Your task to perform on an android device: toggle improve location accuracy Image 0: 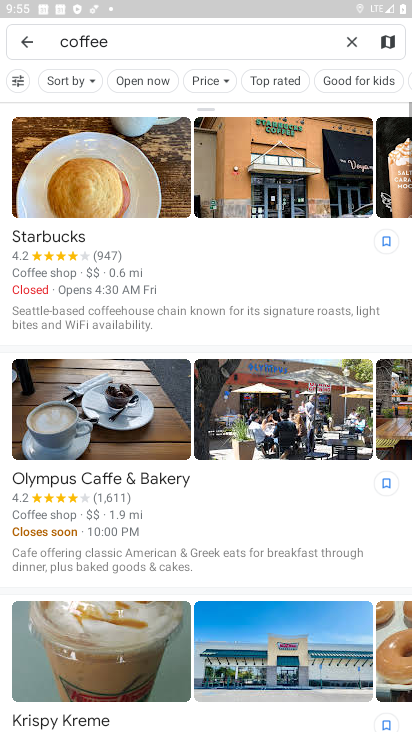
Step 0: drag from (327, 628) to (204, 18)
Your task to perform on an android device: toggle improve location accuracy Image 1: 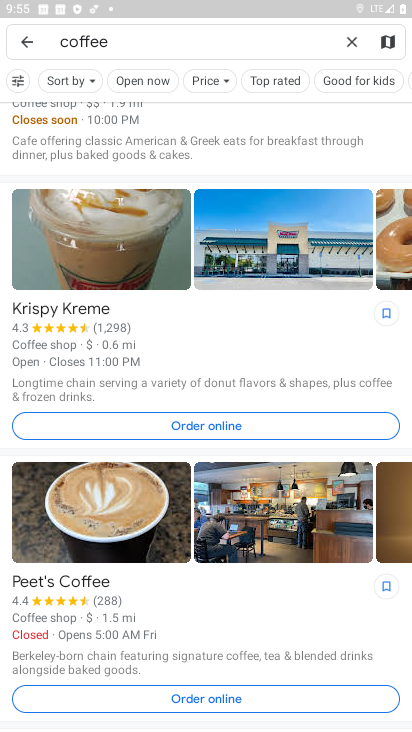
Step 1: press home button
Your task to perform on an android device: toggle improve location accuracy Image 2: 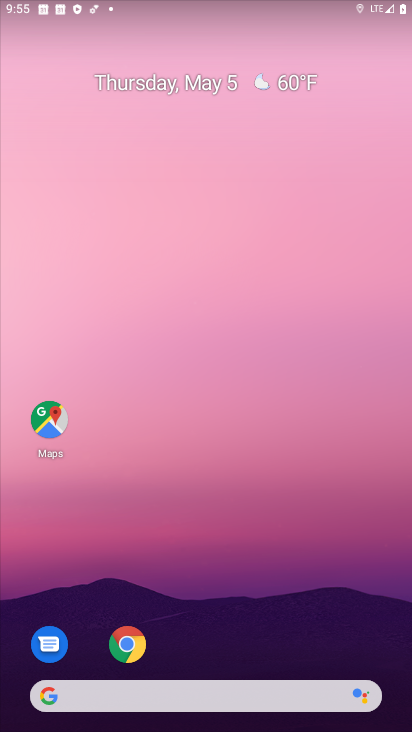
Step 2: drag from (264, 623) to (299, 76)
Your task to perform on an android device: toggle improve location accuracy Image 3: 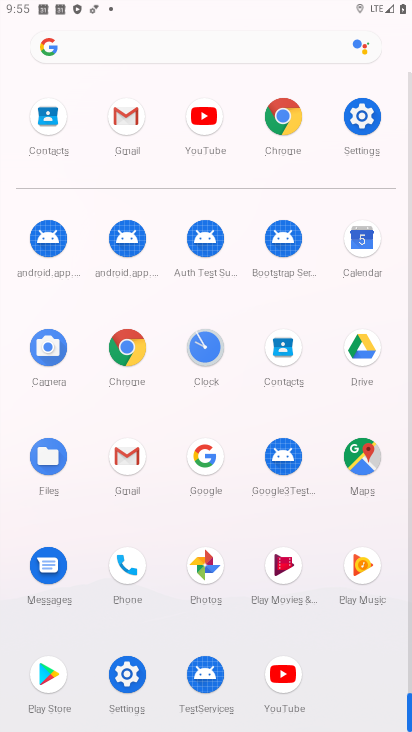
Step 3: click (365, 104)
Your task to perform on an android device: toggle improve location accuracy Image 4: 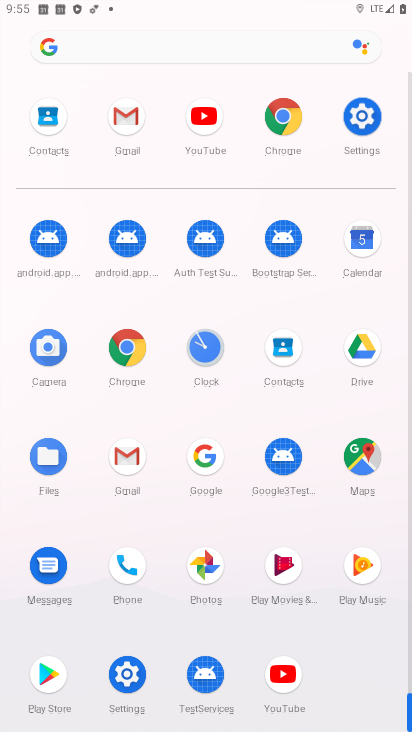
Step 4: click (365, 105)
Your task to perform on an android device: toggle improve location accuracy Image 5: 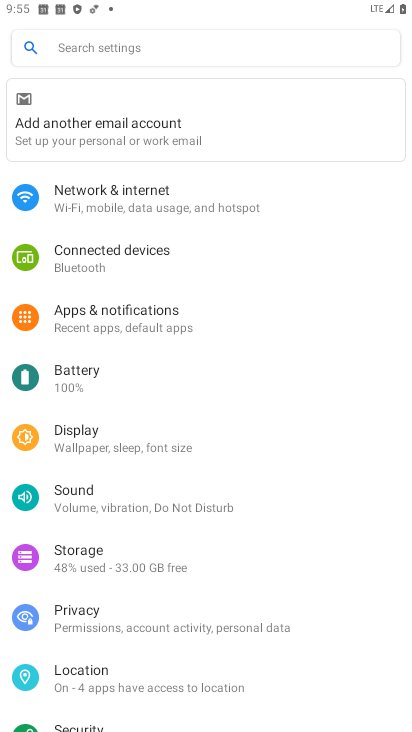
Step 5: click (187, 676)
Your task to perform on an android device: toggle improve location accuracy Image 6: 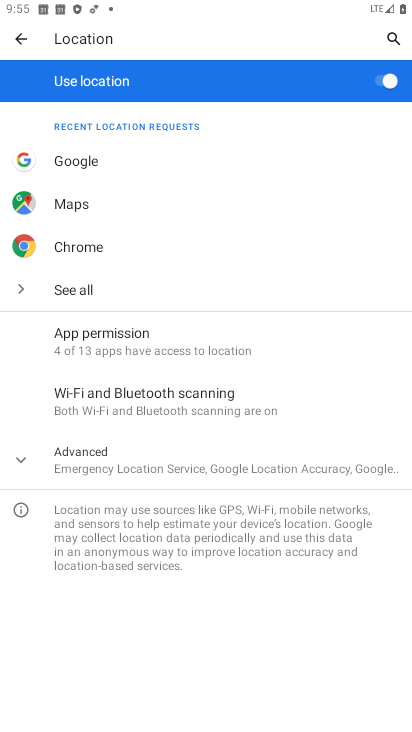
Step 6: click (95, 451)
Your task to perform on an android device: toggle improve location accuracy Image 7: 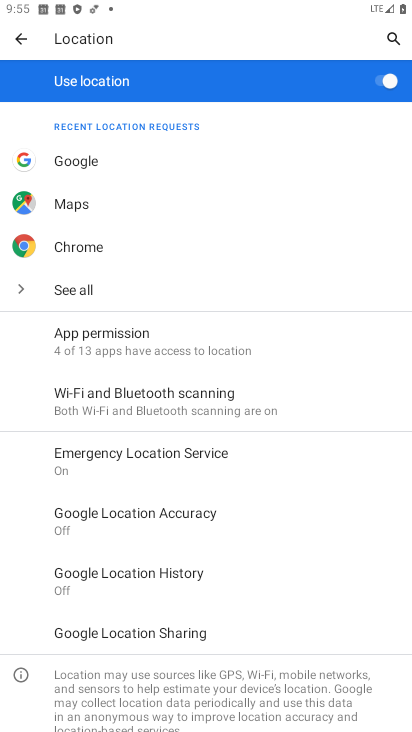
Step 7: click (143, 516)
Your task to perform on an android device: toggle improve location accuracy Image 8: 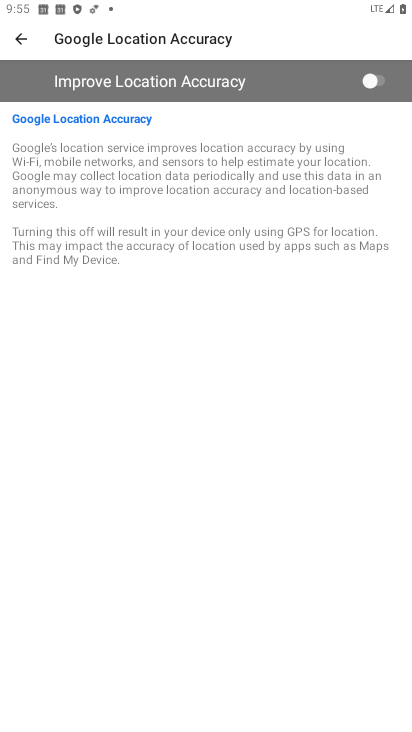
Step 8: click (360, 91)
Your task to perform on an android device: toggle improve location accuracy Image 9: 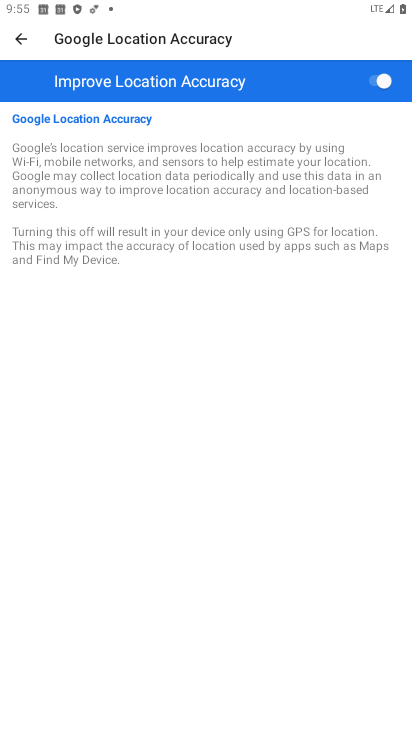
Step 9: task complete